Your task to perform on an android device: star an email in the gmail app Image 0: 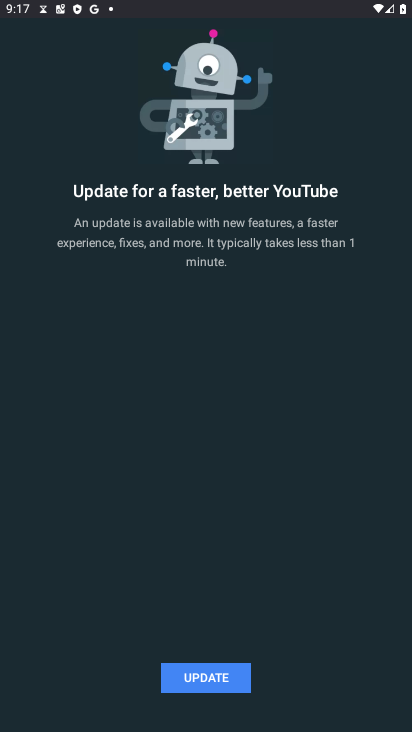
Step 0: press back button
Your task to perform on an android device: star an email in the gmail app Image 1: 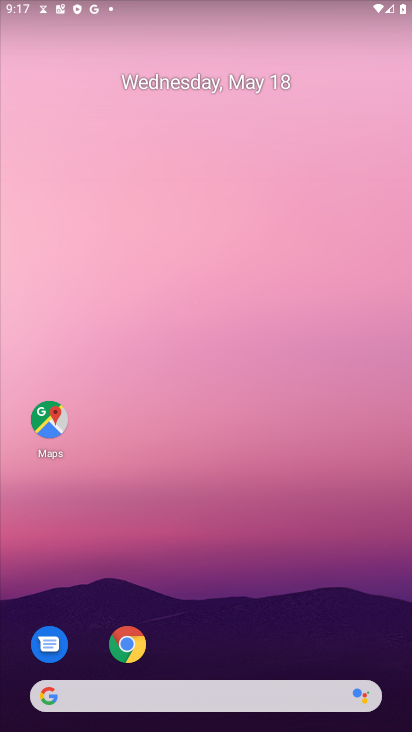
Step 1: drag from (226, 650) to (217, 30)
Your task to perform on an android device: star an email in the gmail app Image 2: 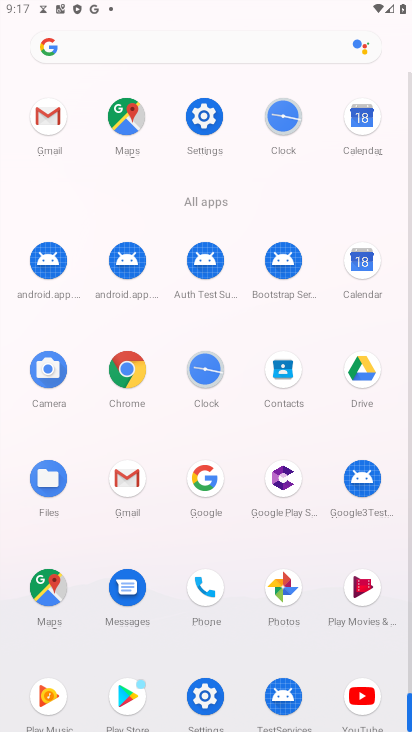
Step 2: click (46, 116)
Your task to perform on an android device: star an email in the gmail app Image 3: 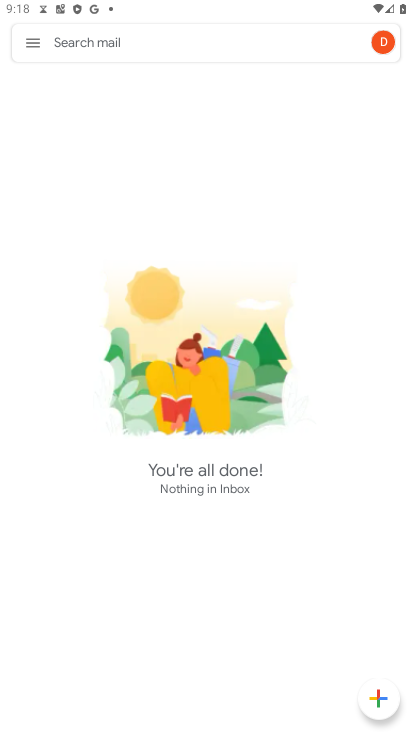
Step 3: click (33, 46)
Your task to perform on an android device: star an email in the gmail app Image 4: 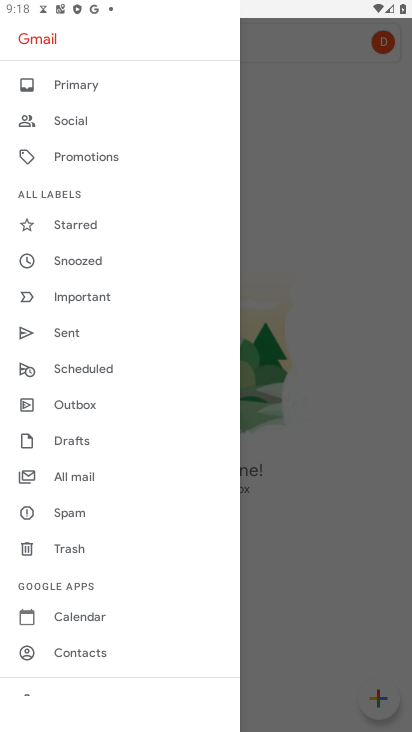
Step 4: click (78, 472)
Your task to perform on an android device: star an email in the gmail app Image 5: 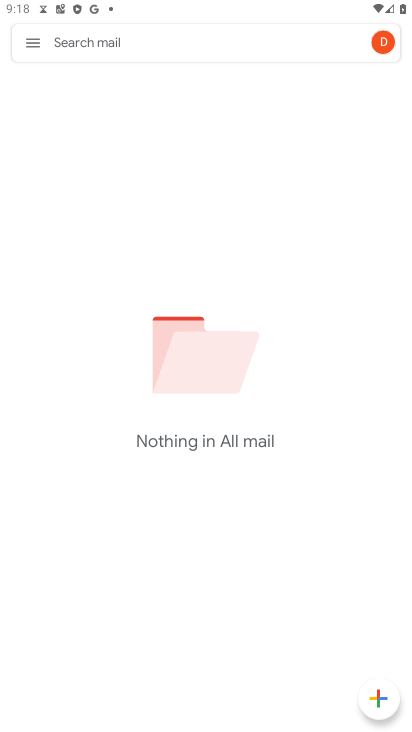
Step 5: task complete